Your task to perform on an android device: delete a single message in the gmail app Image 0: 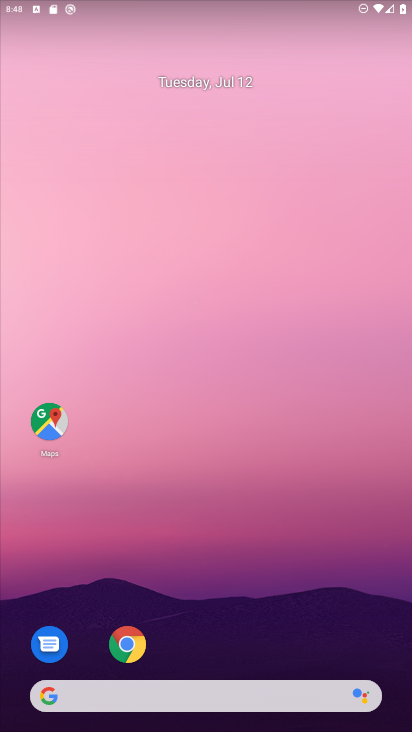
Step 0: drag from (342, 623) to (299, 211)
Your task to perform on an android device: delete a single message in the gmail app Image 1: 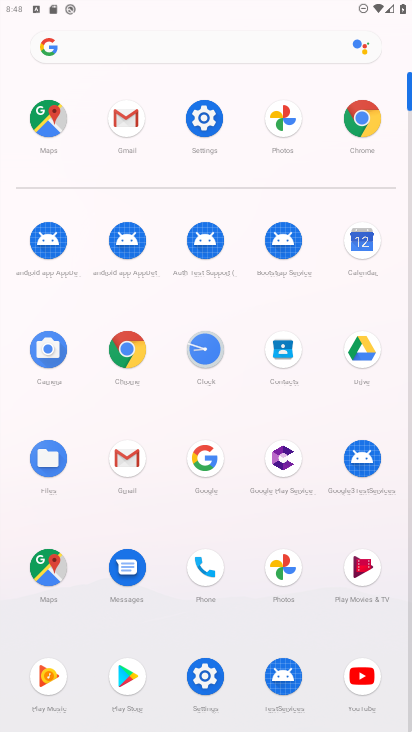
Step 1: click (119, 458)
Your task to perform on an android device: delete a single message in the gmail app Image 2: 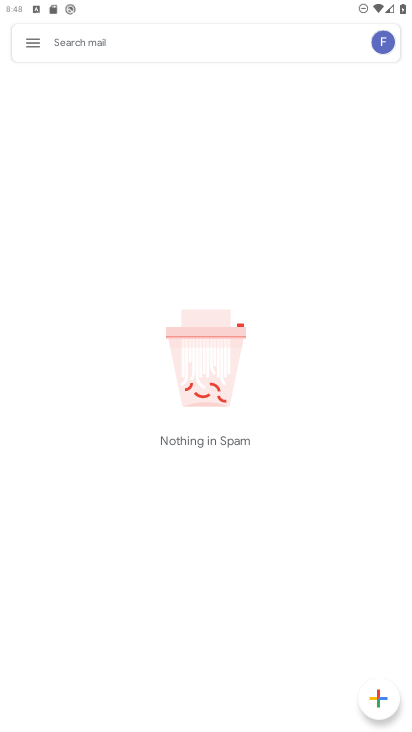
Step 2: click (27, 39)
Your task to perform on an android device: delete a single message in the gmail app Image 3: 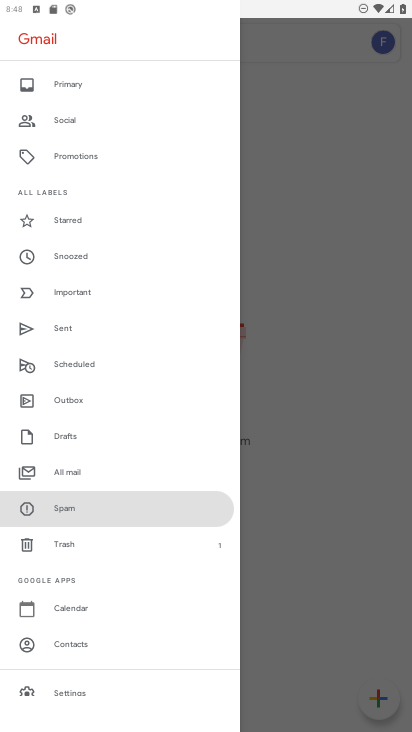
Step 3: click (69, 467)
Your task to perform on an android device: delete a single message in the gmail app Image 4: 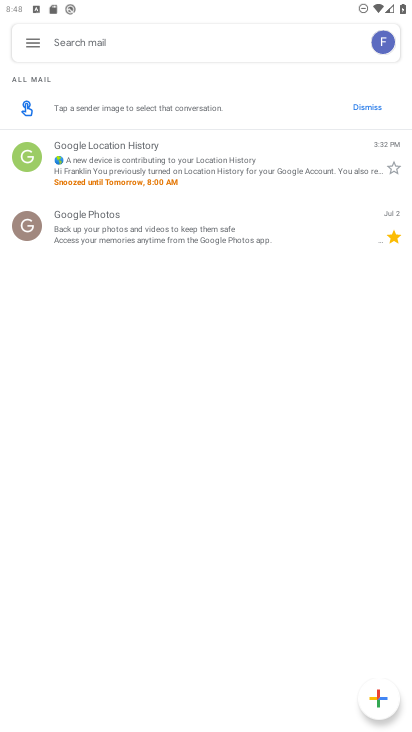
Step 4: click (155, 163)
Your task to perform on an android device: delete a single message in the gmail app Image 5: 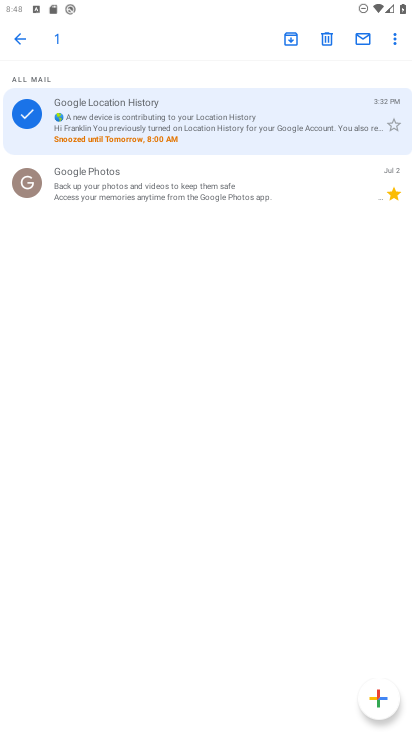
Step 5: click (324, 40)
Your task to perform on an android device: delete a single message in the gmail app Image 6: 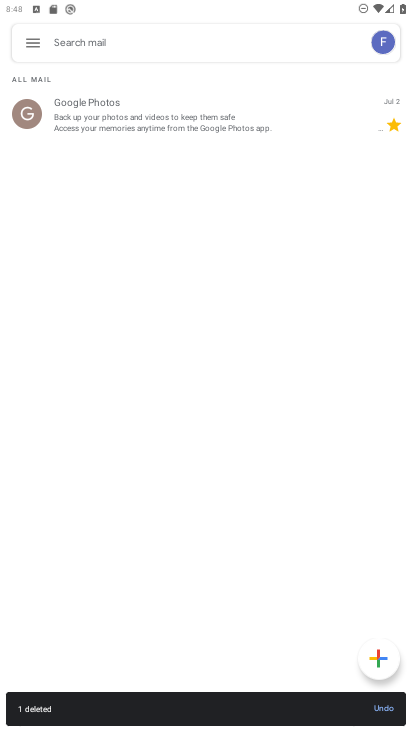
Step 6: task complete